Your task to perform on an android device: Add "macbook pro" to the cart on bestbuy, then select checkout. Image 0: 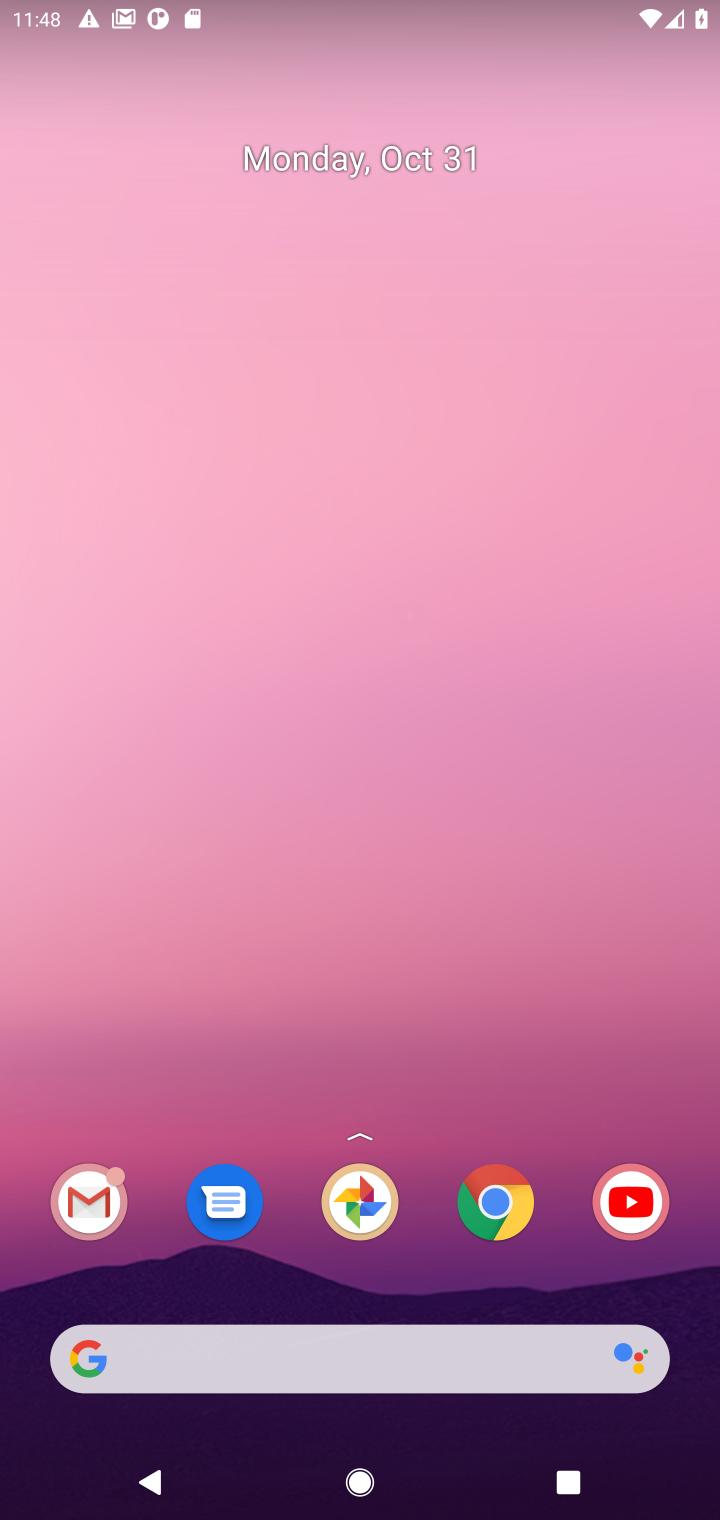
Step 0: click (483, 1190)
Your task to perform on an android device: Add "macbook pro" to the cart on bestbuy, then select checkout. Image 1: 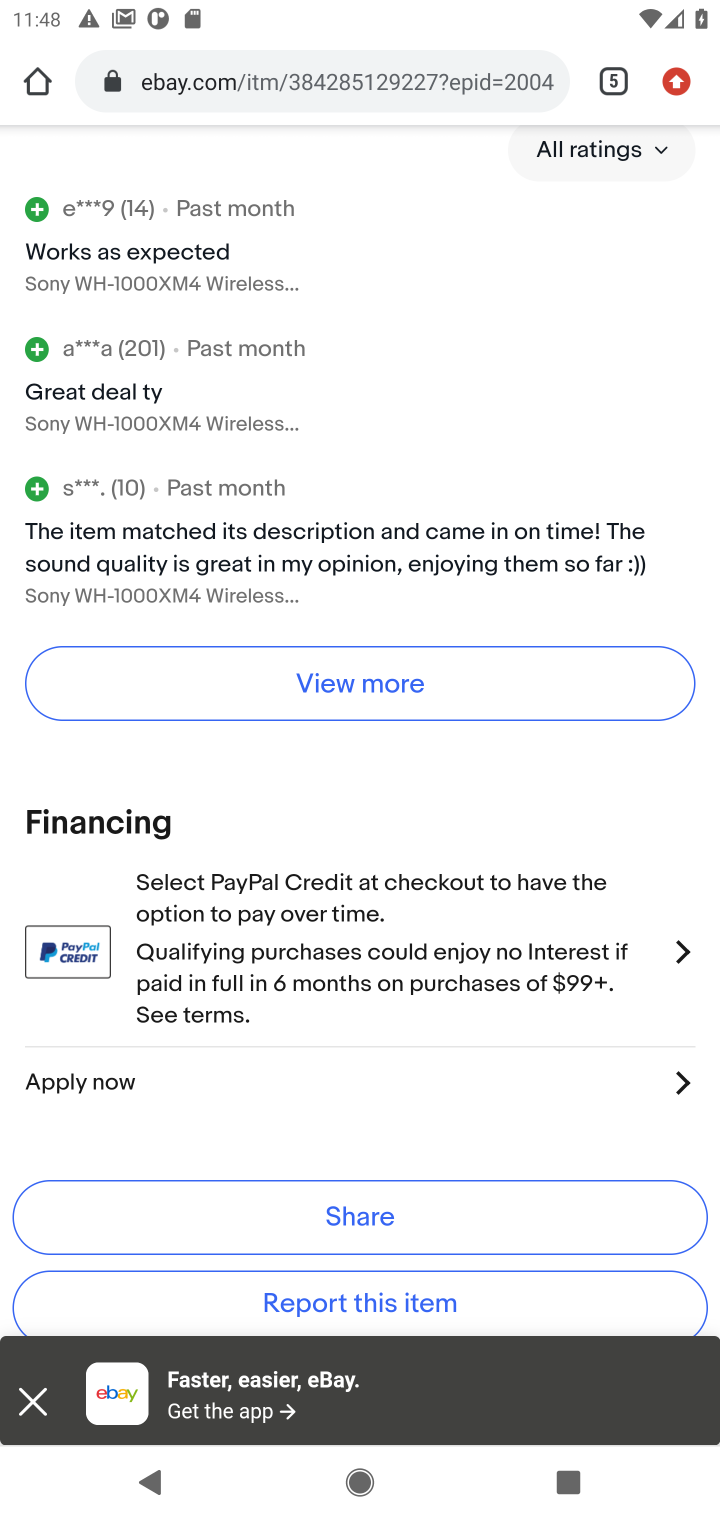
Step 1: click (617, 86)
Your task to perform on an android device: Add "macbook pro" to the cart on bestbuy, then select checkout. Image 2: 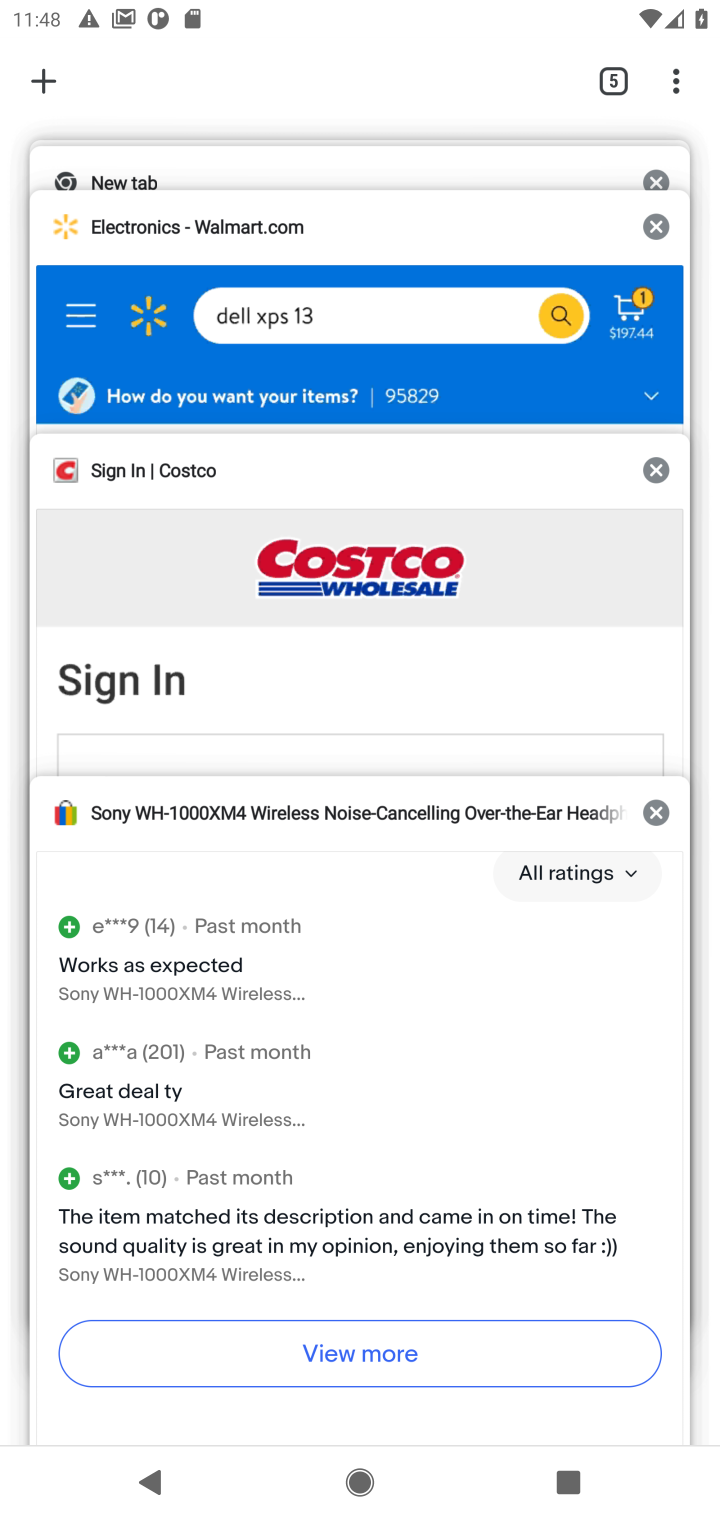
Step 2: drag from (378, 183) to (265, 890)
Your task to perform on an android device: Add "macbook pro" to the cart on bestbuy, then select checkout. Image 3: 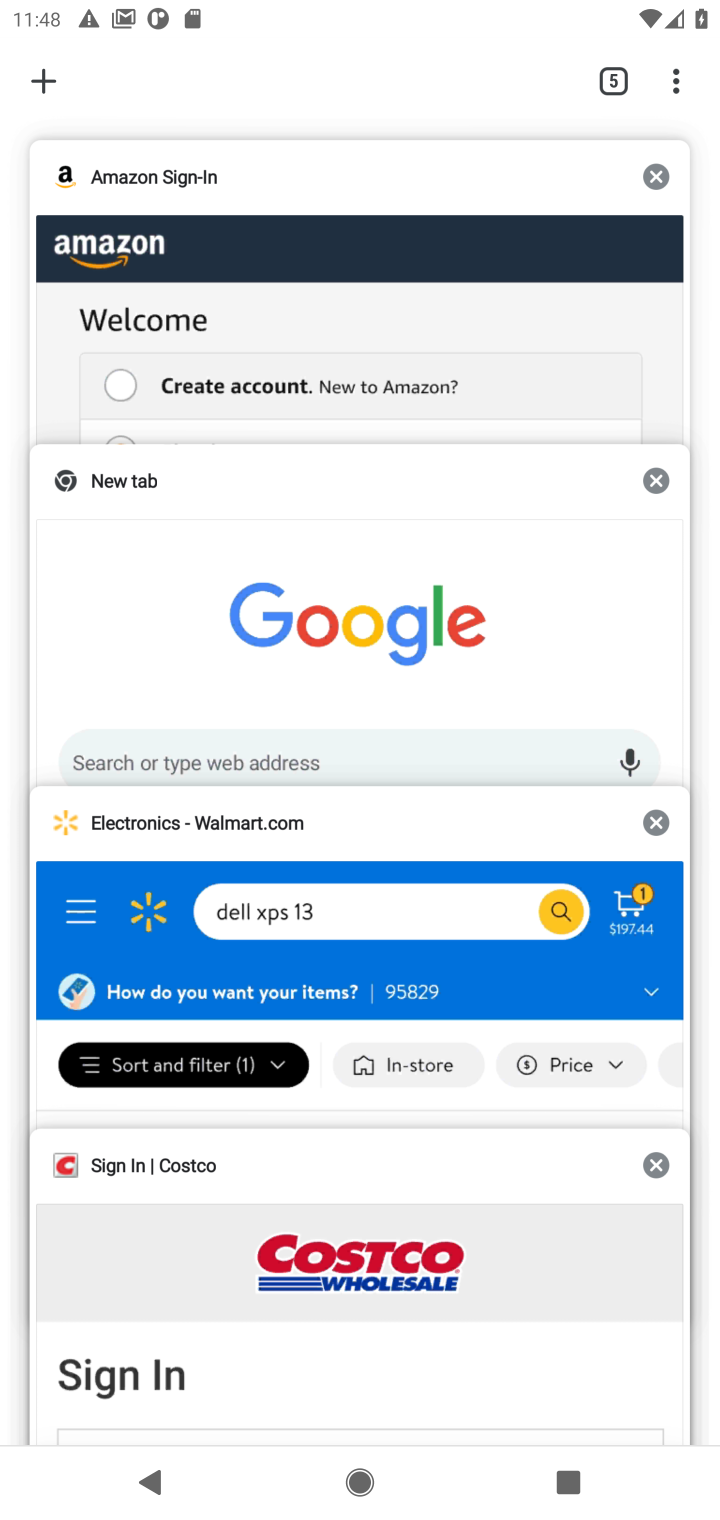
Step 3: click (40, 68)
Your task to perform on an android device: Add "macbook pro" to the cart on bestbuy, then select checkout. Image 4: 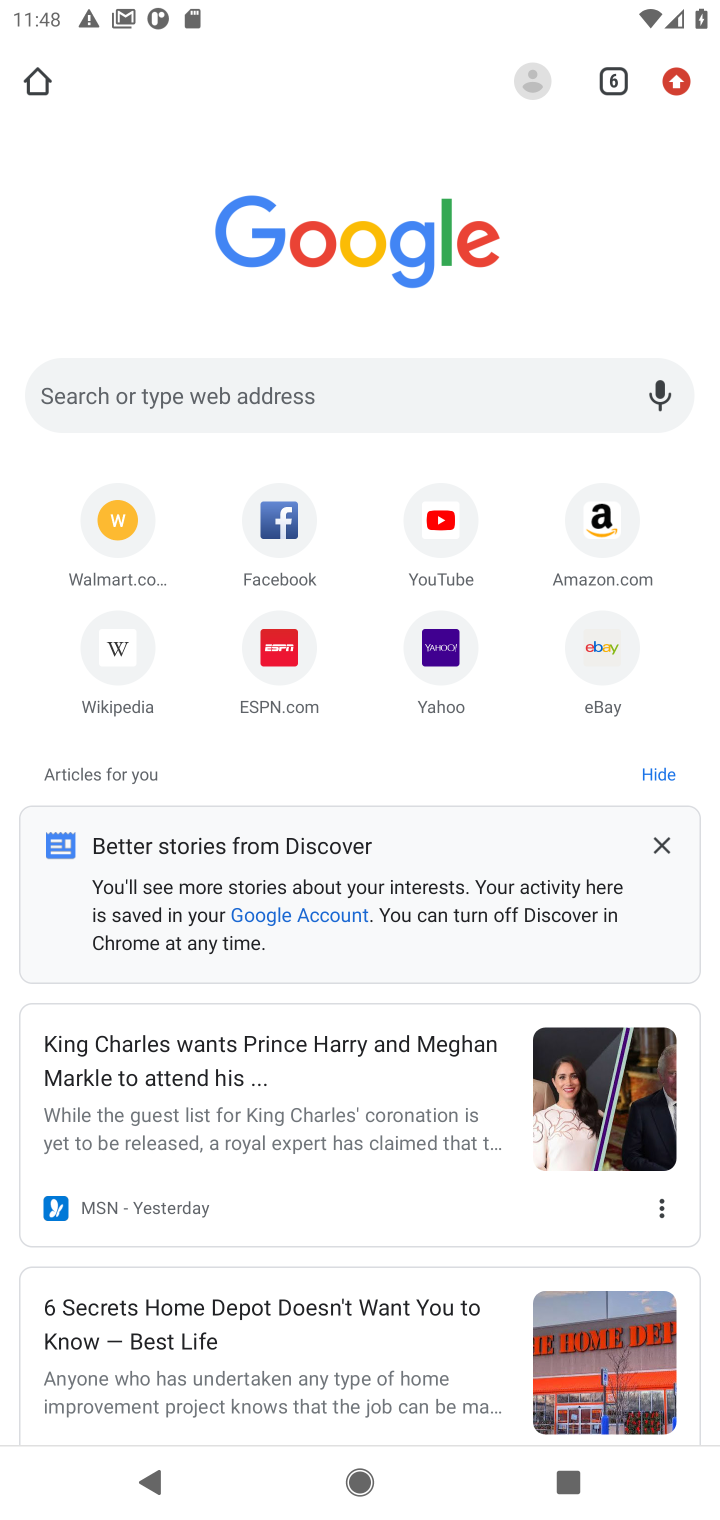
Step 4: click (378, 378)
Your task to perform on an android device: Add "macbook pro" to the cart on bestbuy, then select checkout. Image 5: 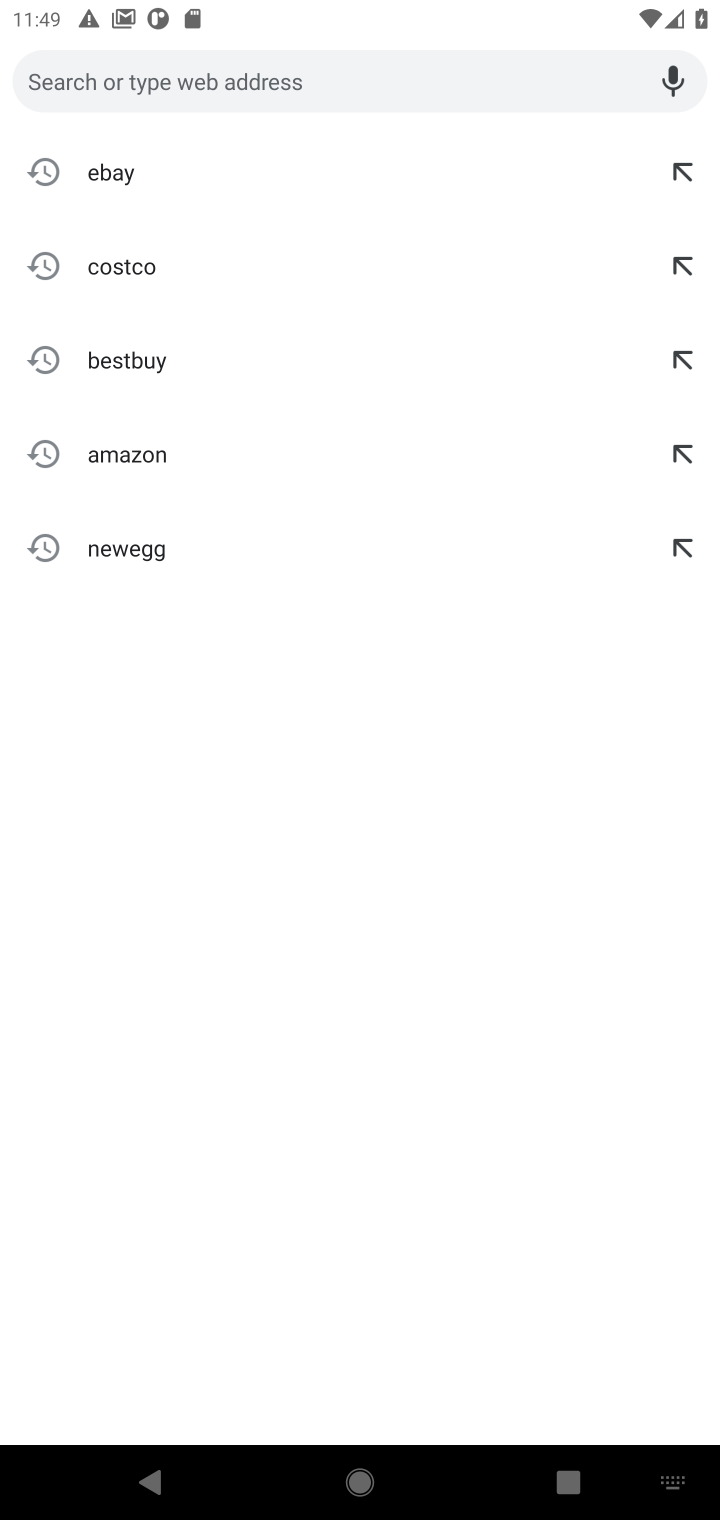
Step 5: type "bestbuy"
Your task to perform on an android device: Add "macbook pro" to the cart on bestbuy, then select checkout. Image 6: 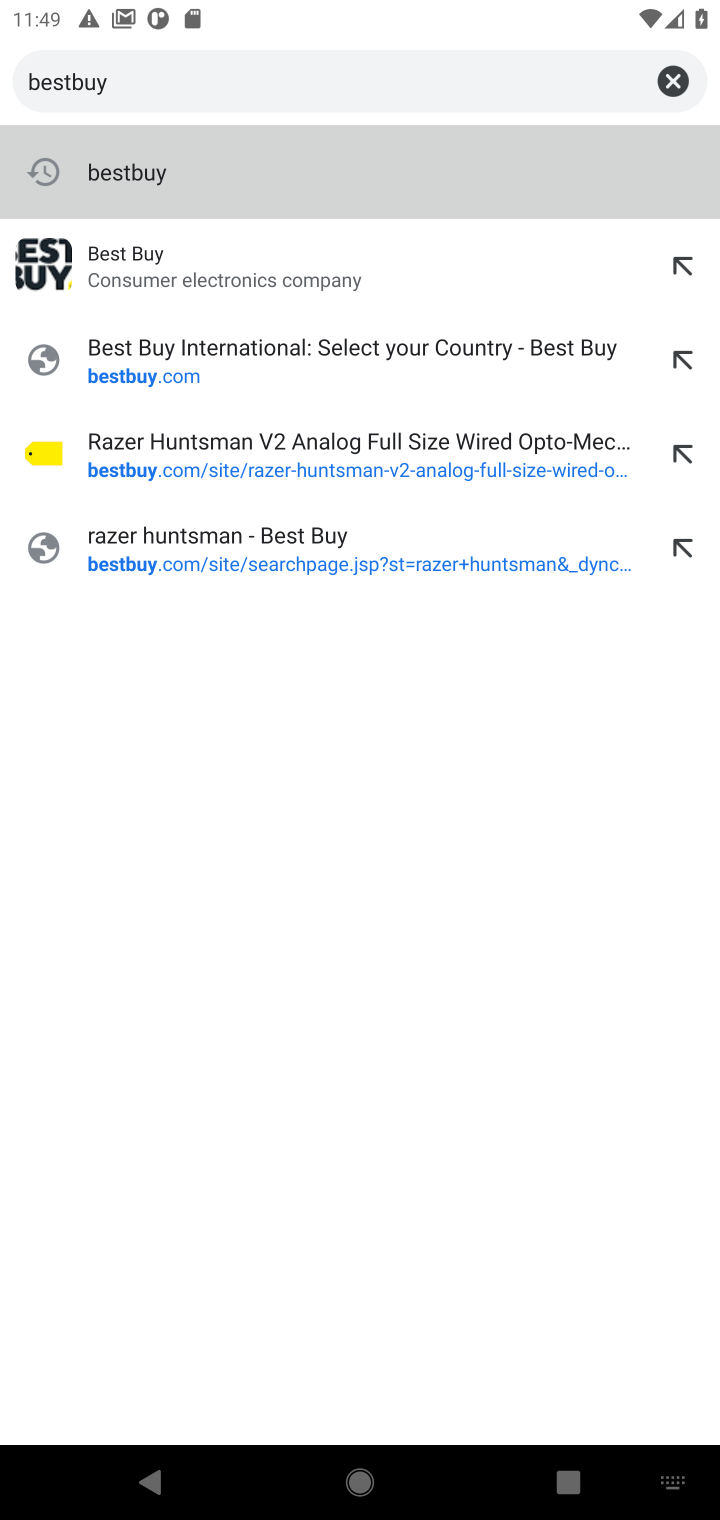
Step 6: click (206, 444)
Your task to perform on an android device: Add "macbook pro" to the cart on bestbuy, then select checkout. Image 7: 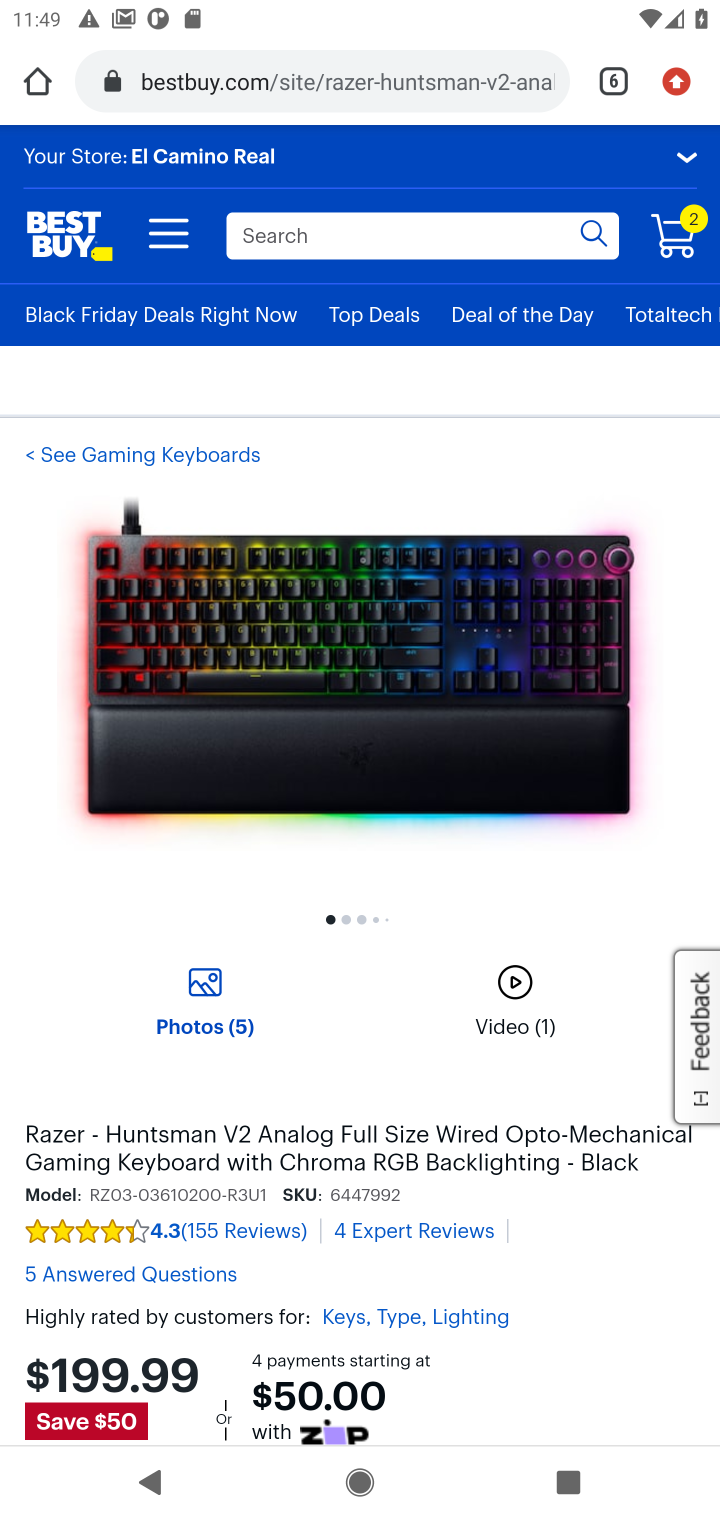
Step 7: click (409, 237)
Your task to perform on an android device: Add "macbook pro" to the cart on bestbuy, then select checkout. Image 8: 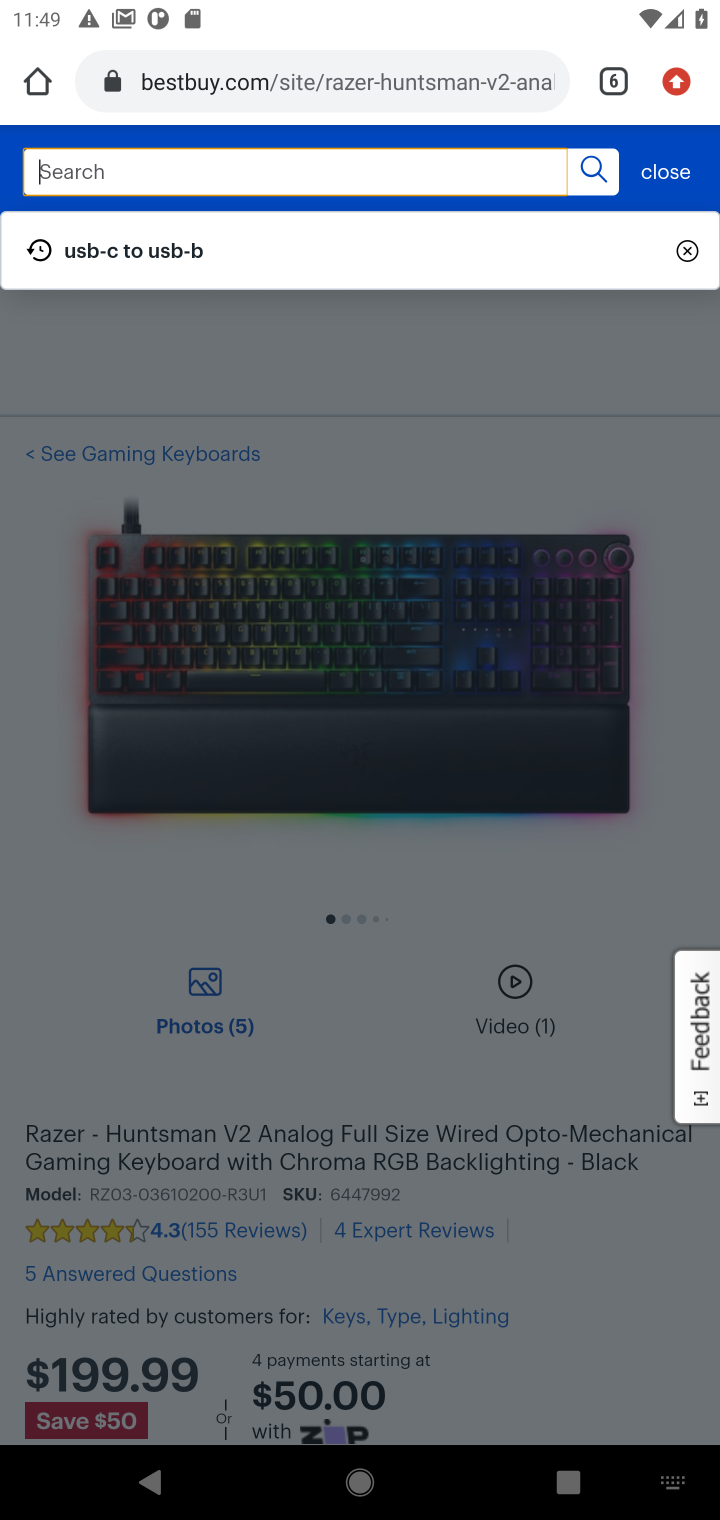
Step 8: type "macbook pro"
Your task to perform on an android device: Add "macbook pro" to the cart on bestbuy, then select checkout. Image 9: 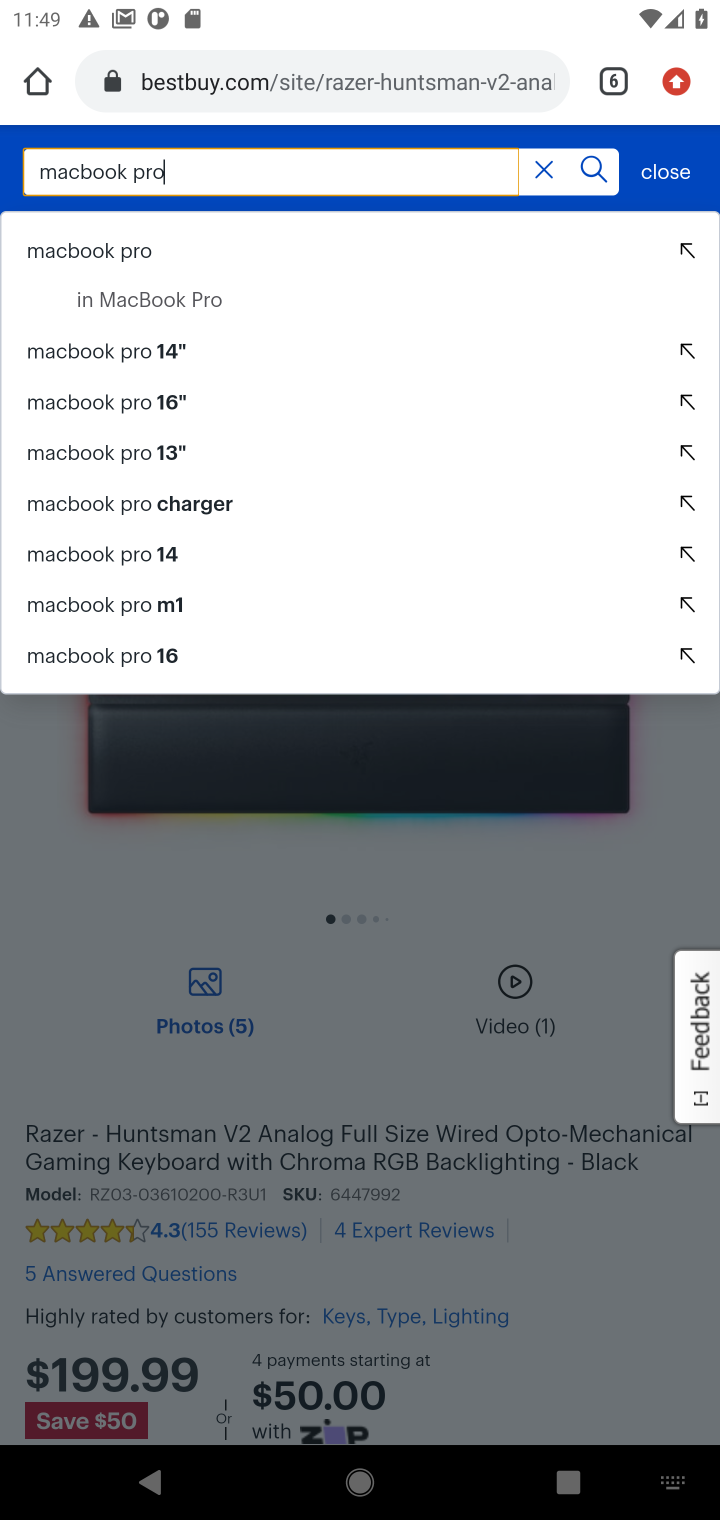
Step 9: click (59, 240)
Your task to perform on an android device: Add "macbook pro" to the cart on bestbuy, then select checkout. Image 10: 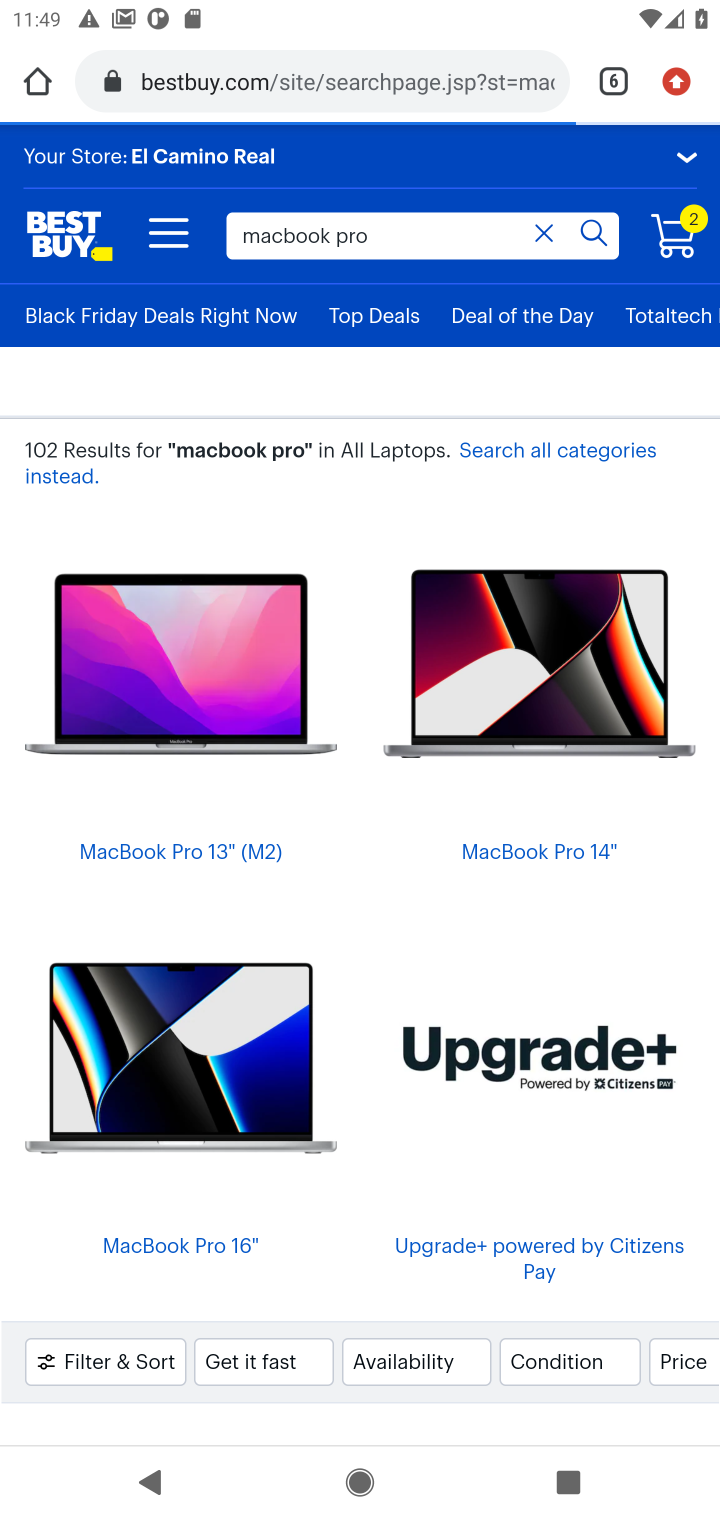
Step 10: click (240, 849)
Your task to perform on an android device: Add "macbook pro" to the cart on bestbuy, then select checkout. Image 11: 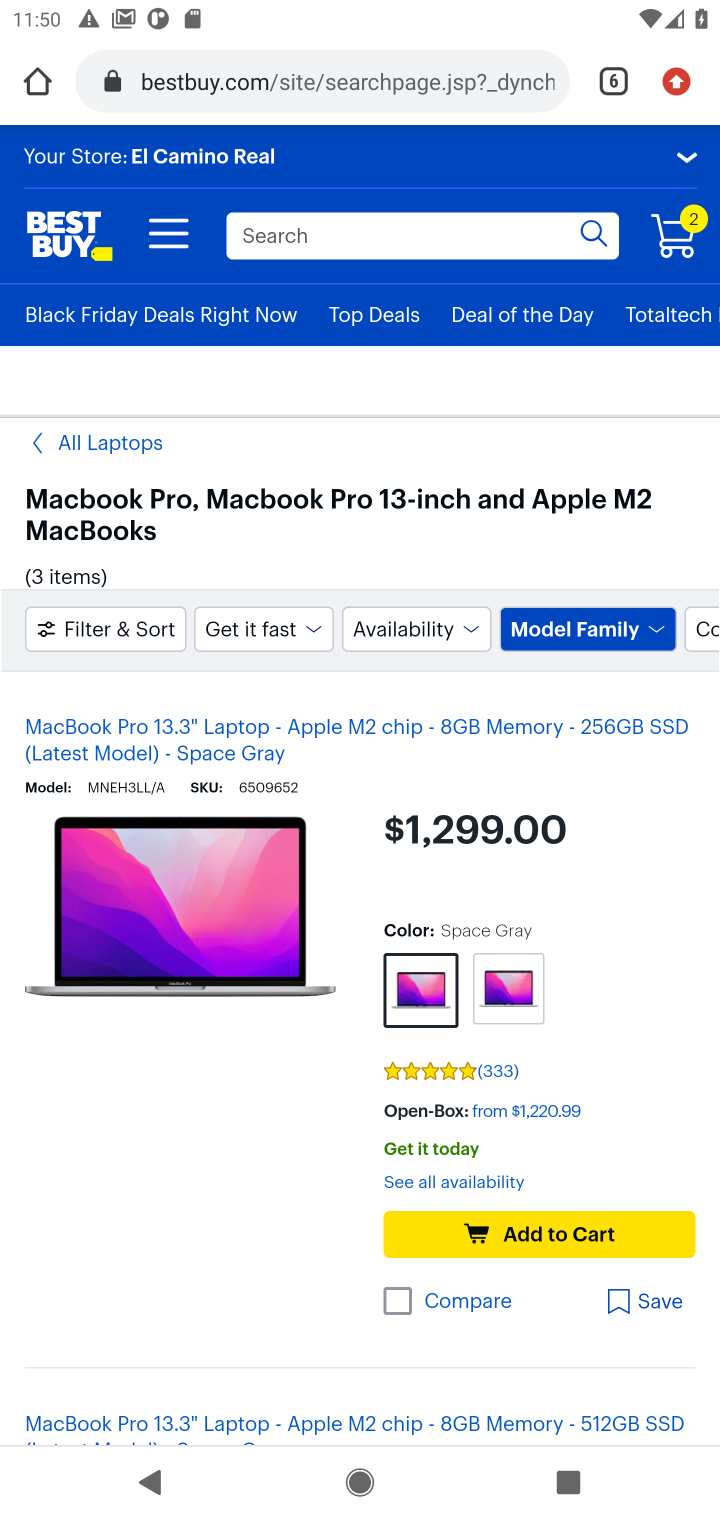
Step 11: click (556, 1188)
Your task to perform on an android device: Add "macbook pro" to the cart on bestbuy, then select checkout. Image 12: 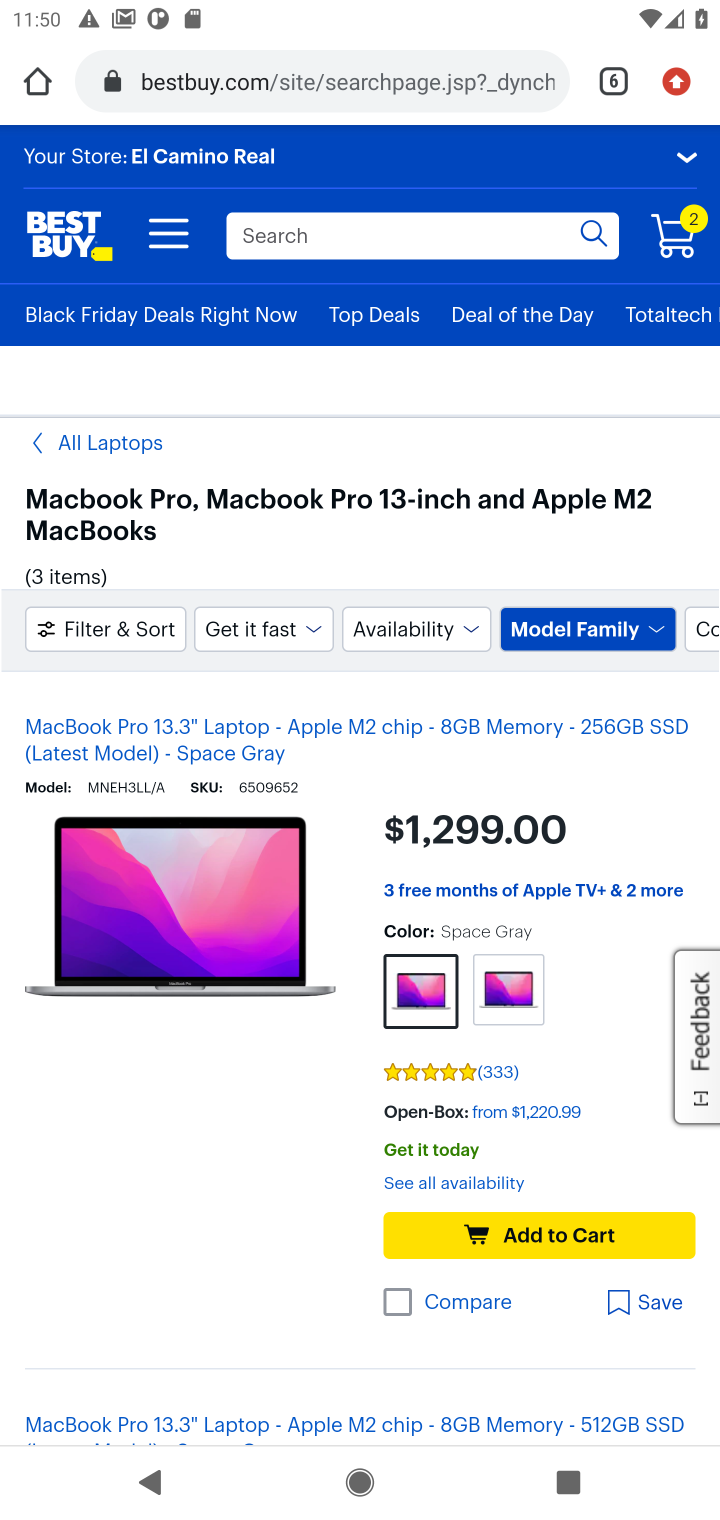
Step 12: click (550, 1237)
Your task to perform on an android device: Add "macbook pro" to the cart on bestbuy, then select checkout. Image 13: 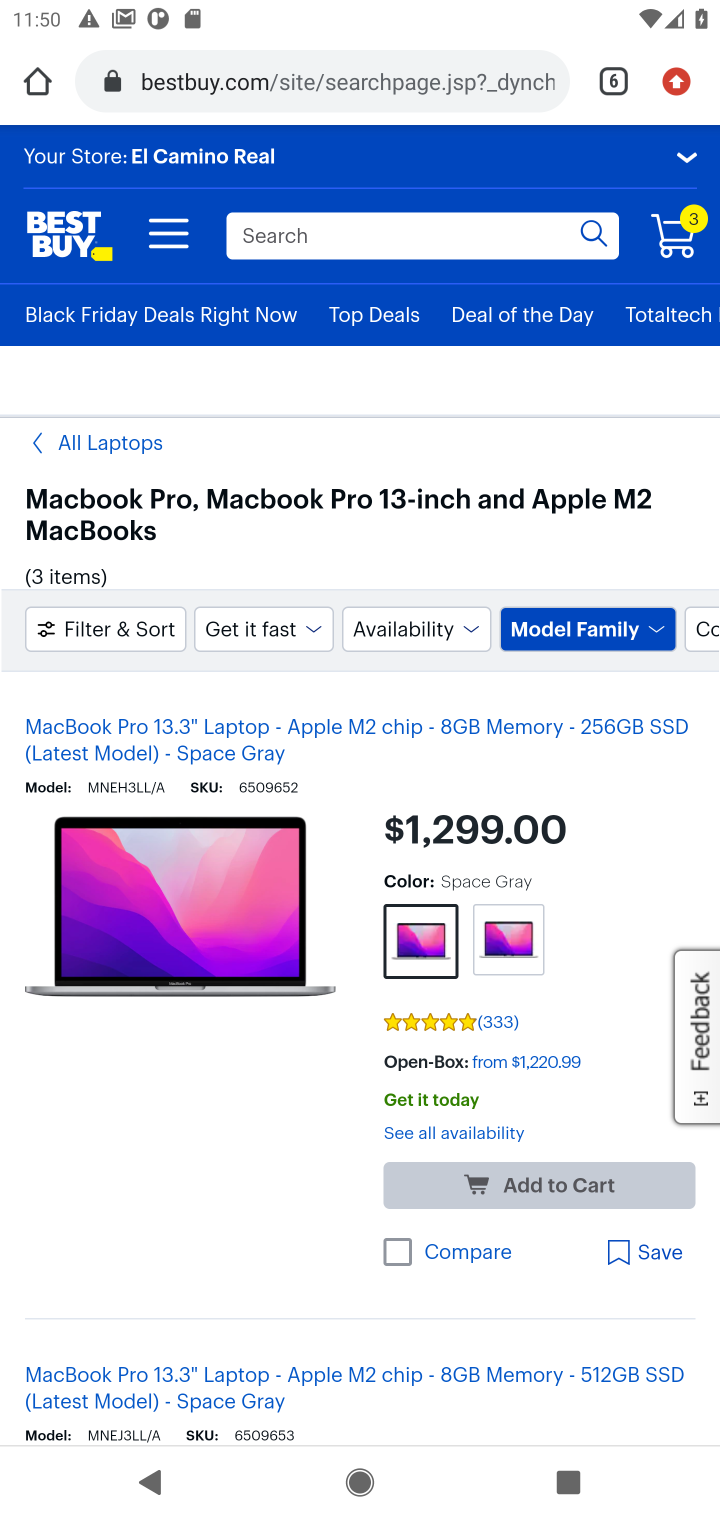
Step 13: click (675, 235)
Your task to perform on an android device: Add "macbook pro" to the cart on bestbuy, then select checkout. Image 14: 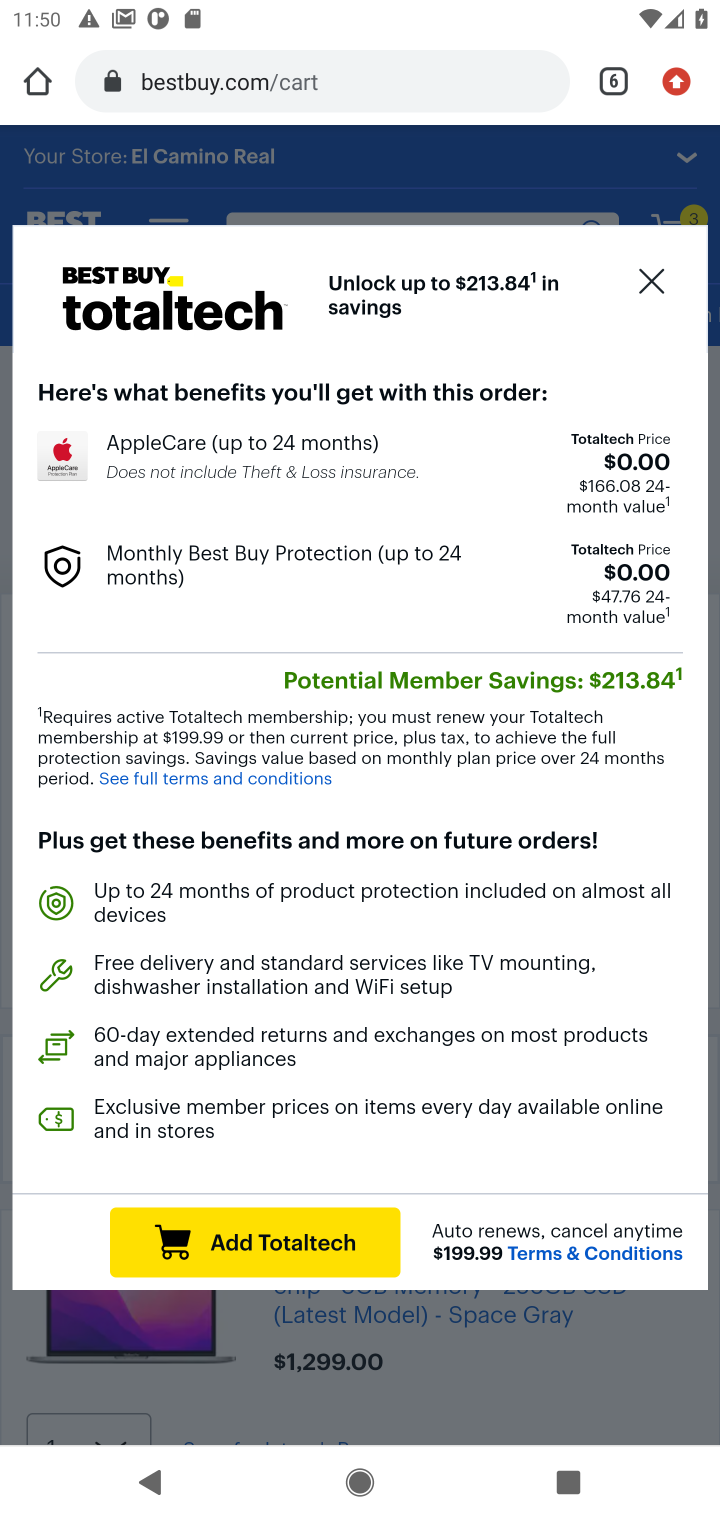
Step 14: click (331, 1312)
Your task to perform on an android device: Add "macbook pro" to the cart on bestbuy, then select checkout. Image 15: 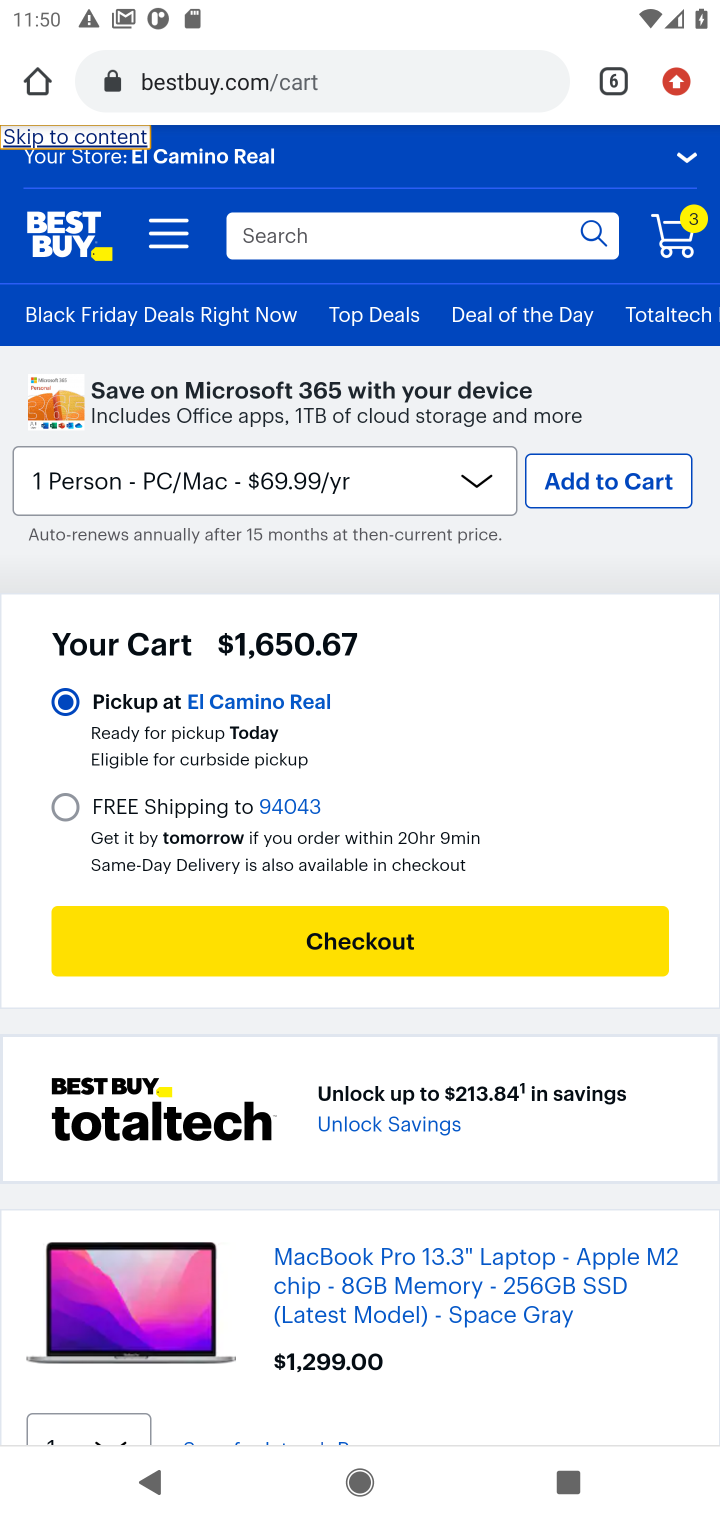
Step 15: click (318, 1247)
Your task to perform on an android device: Add "macbook pro" to the cart on bestbuy, then select checkout. Image 16: 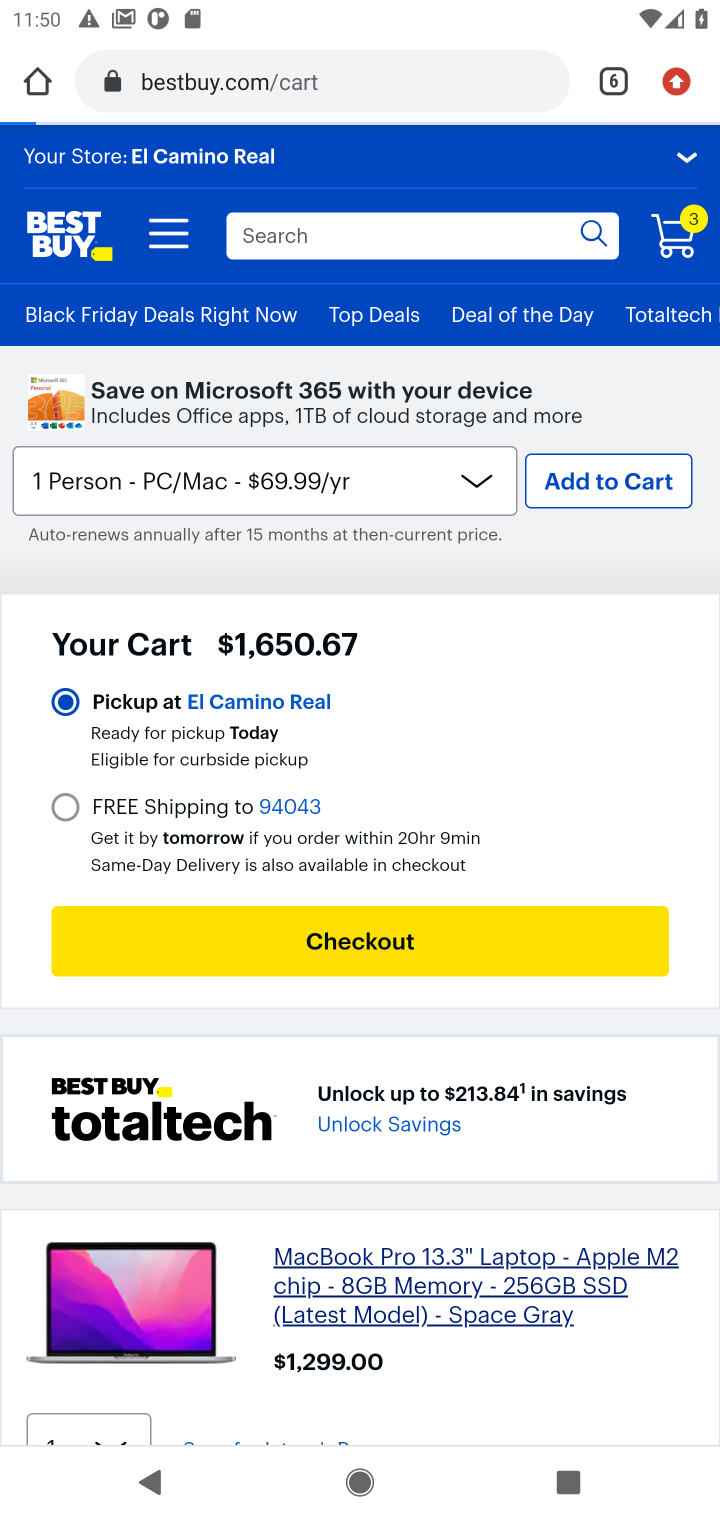
Step 16: click (430, 931)
Your task to perform on an android device: Add "macbook pro" to the cart on bestbuy, then select checkout. Image 17: 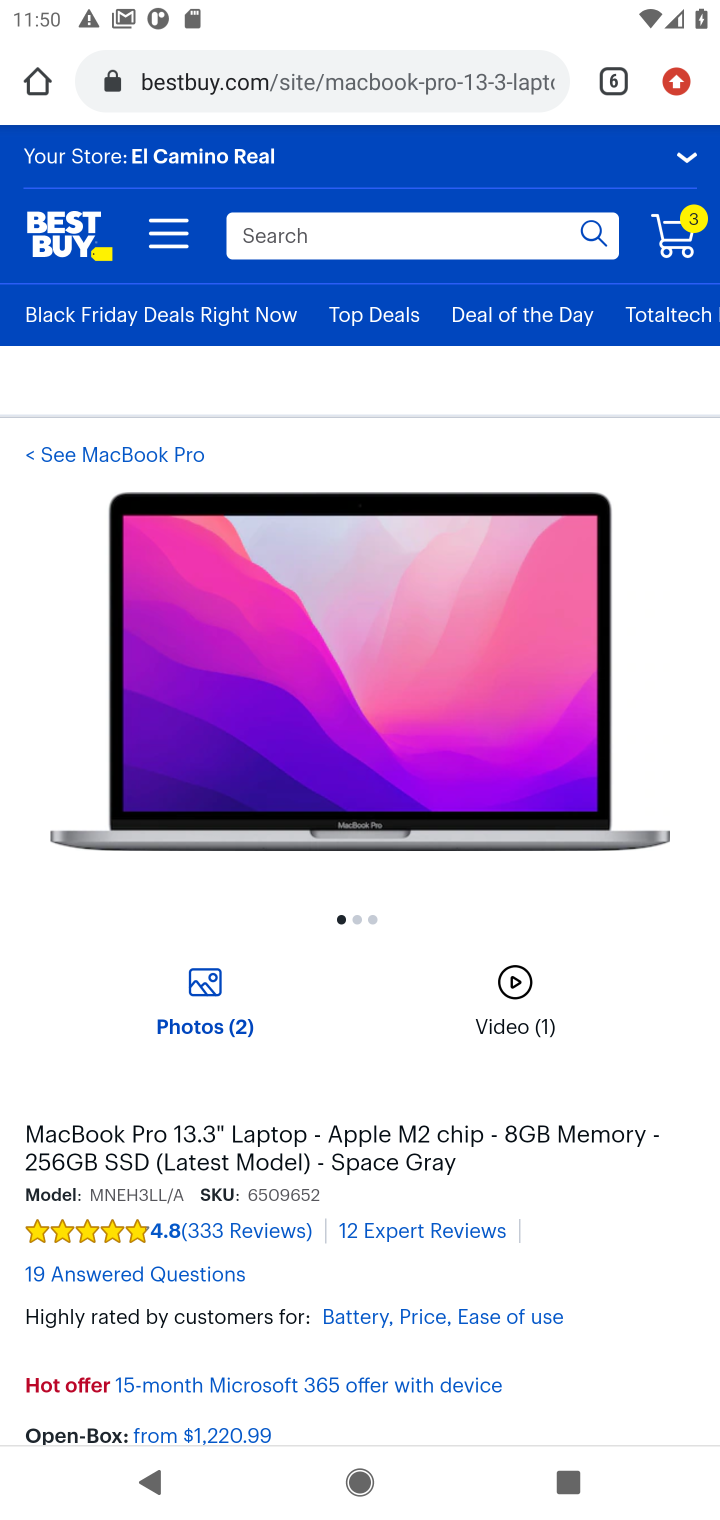
Step 17: task complete